Your task to perform on an android device: change text size in settings app Image 0: 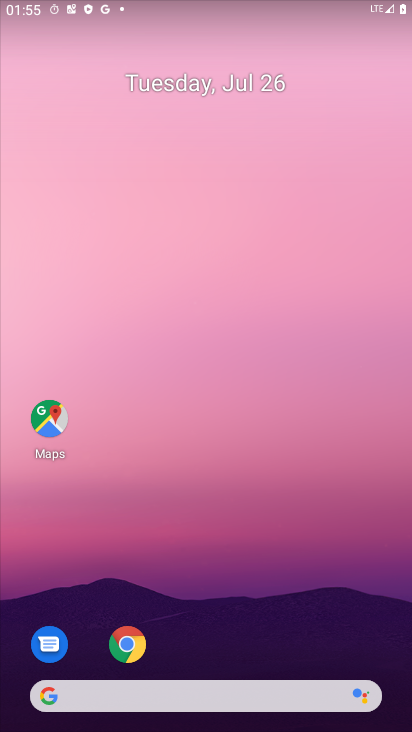
Step 0: drag from (232, 578) to (262, 32)
Your task to perform on an android device: change text size in settings app Image 1: 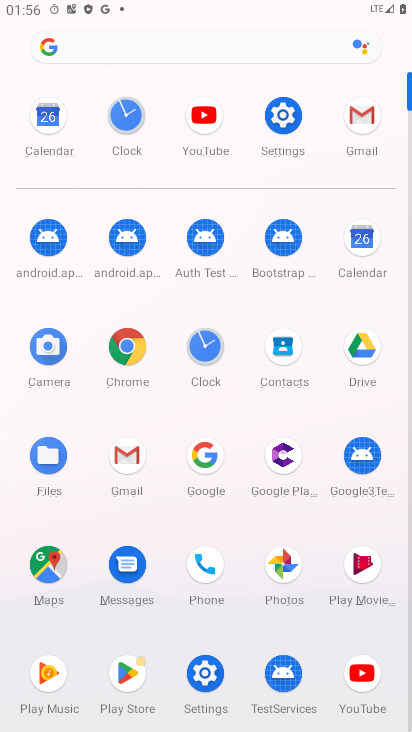
Step 1: click (285, 110)
Your task to perform on an android device: change text size in settings app Image 2: 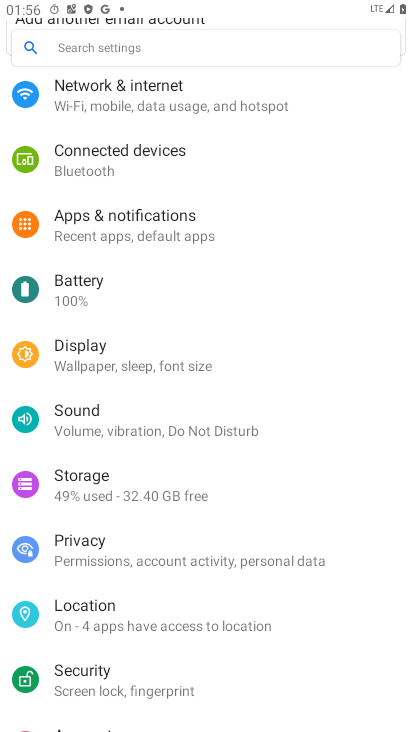
Step 2: drag from (208, 580) to (192, 321)
Your task to perform on an android device: change text size in settings app Image 3: 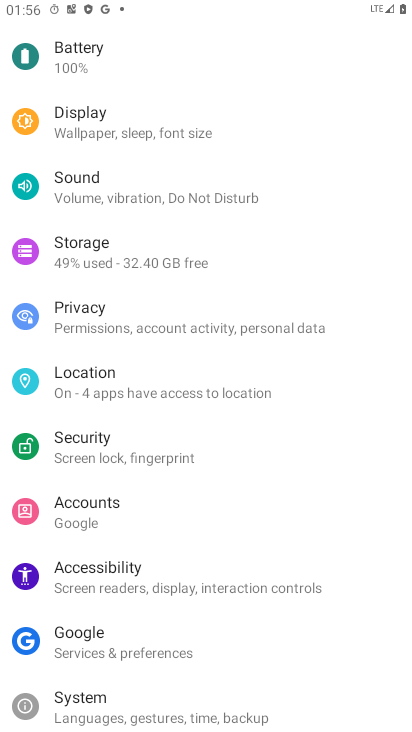
Step 3: click (111, 575)
Your task to perform on an android device: change text size in settings app Image 4: 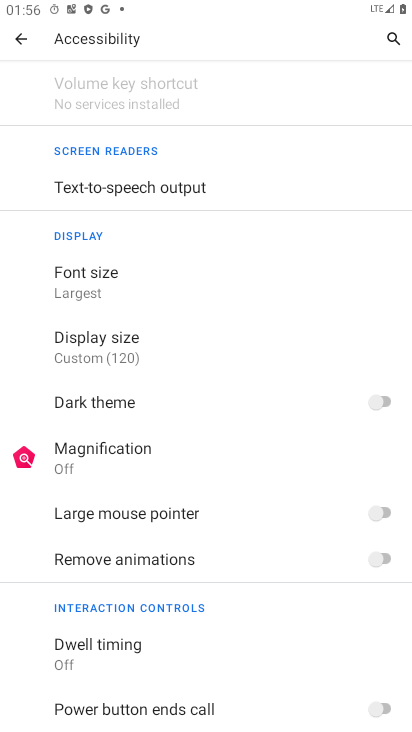
Step 4: click (88, 284)
Your task to perform on an android device: change text size in settings app Image 5: 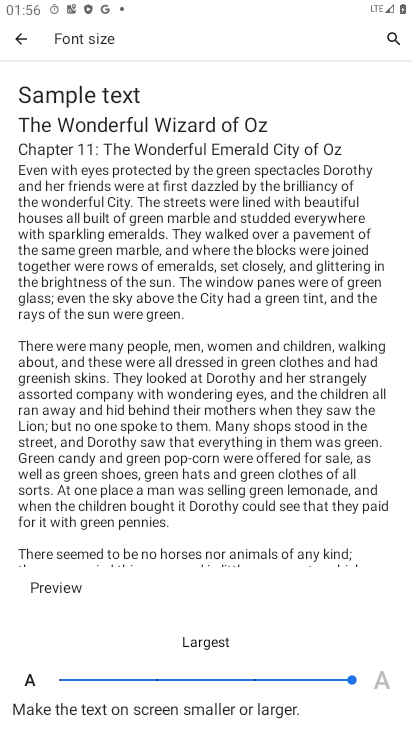
Step 5: task complete